Your task to perform on an android device: Go to network settings Image 0: 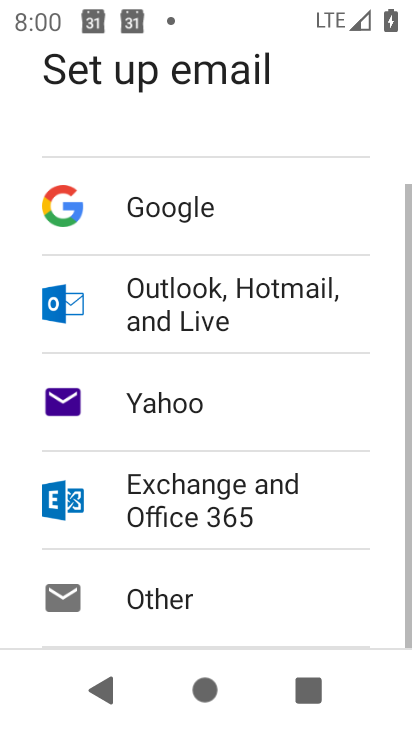
Step 0: press home button
Your task to perform on an android device: Go to network settings Image 1: 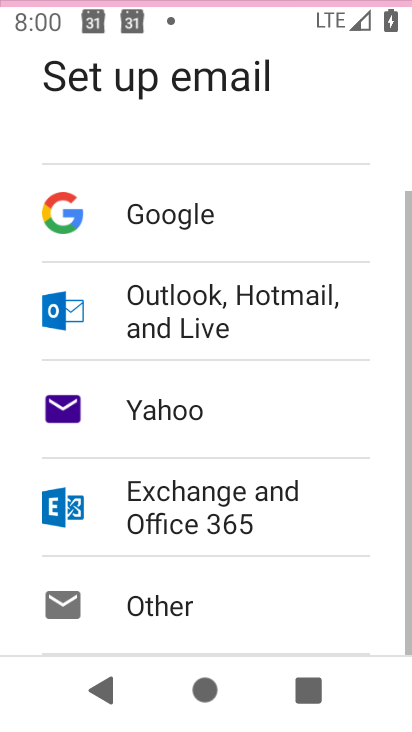
Step 1: press home button
Your task to perform on an android device: Go to network settings Image 2: 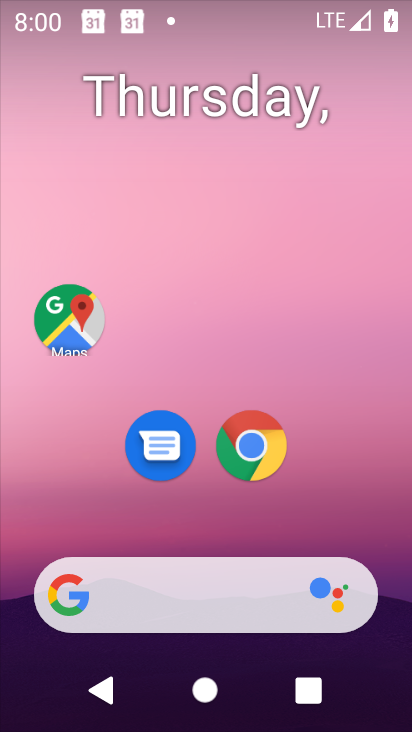
Step 2: drag from (179, 512) to (246, 105)
Your task to perform on an android device: Go to network settings Image 3: 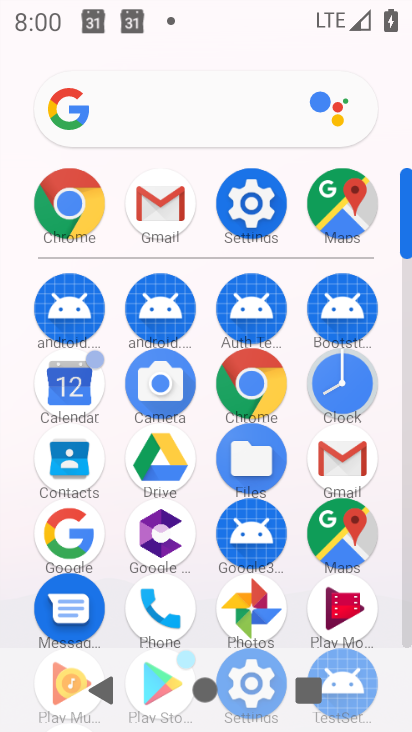
Step 3: click (262, 183)
Your task to perform on an android device: Go to network settings Image 4: 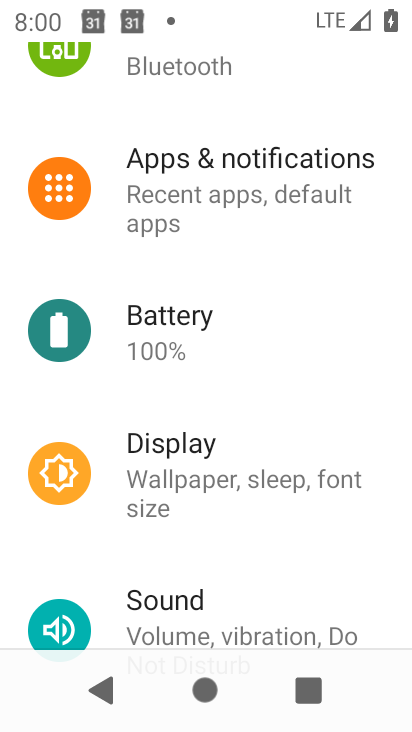
Step 4: drag from (236, 133) to (278, 489)
Your task to perform on an android device: Go to network settings Image 5: 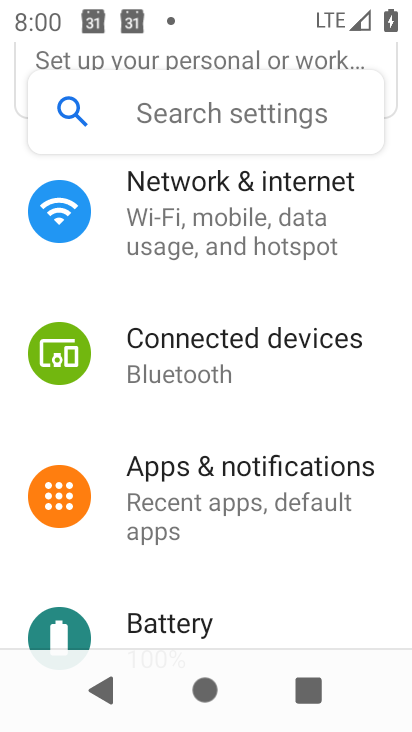
Step 5: click (222, 232)
Your task to perform on an android device: Go to network settings Image 6: 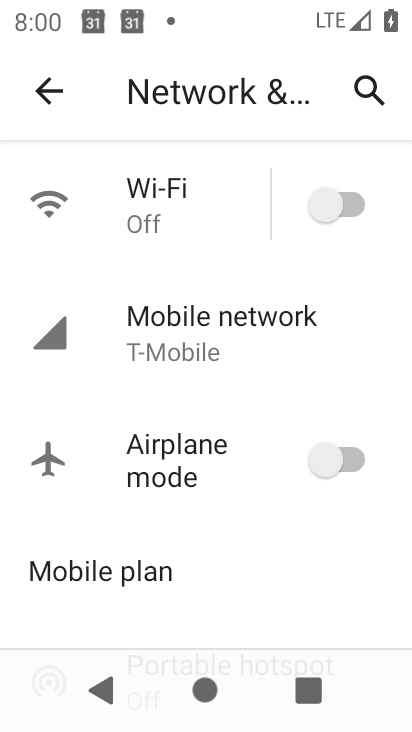
Step 6: task complete